Your task to perform on an android device: change keyboard looks Image 0: 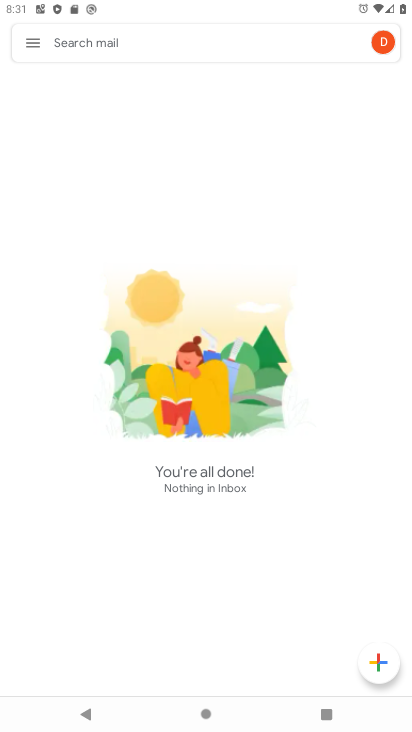
Step 0: press home button
Your task to perform on an android device: change keyboard looks Image 1: 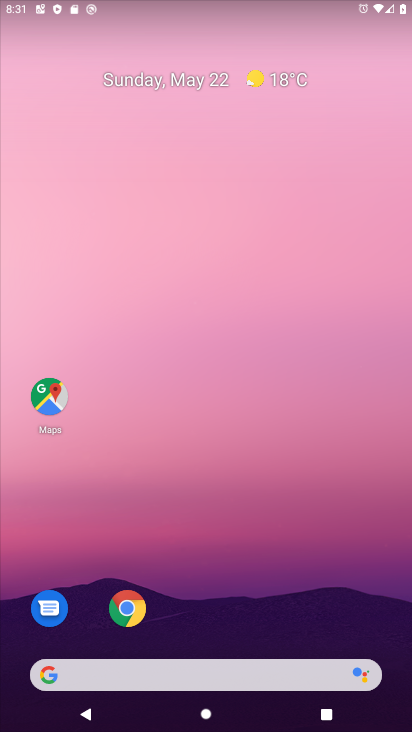
Step 1: drag from (226, 725) to (212, 141)
Your task to perform on an android device: change keyboard looks Image 2: 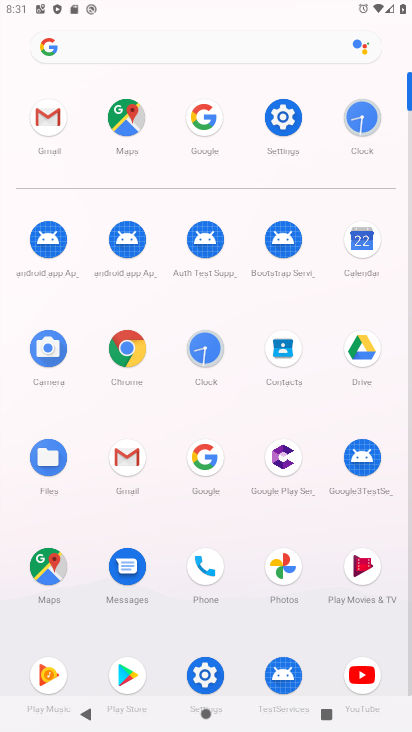
Step 2: click (285, 109)
Your task to perform on an android device: change keyboard looks Image 3: 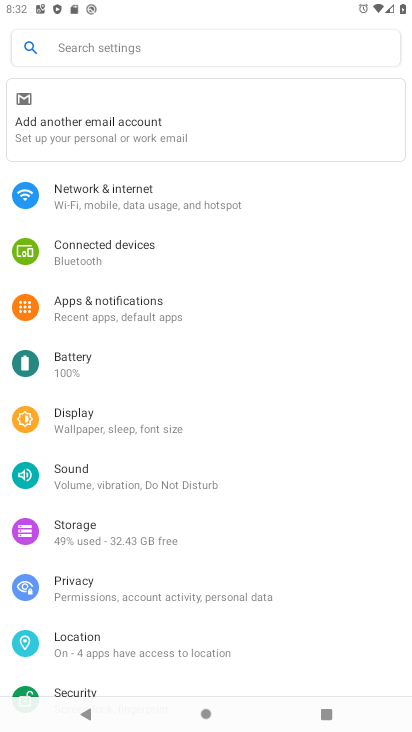
Step 3: drag from (168, 666) to (180, 230)
Your task to perform on an android device: change keyboard looks Image 4: 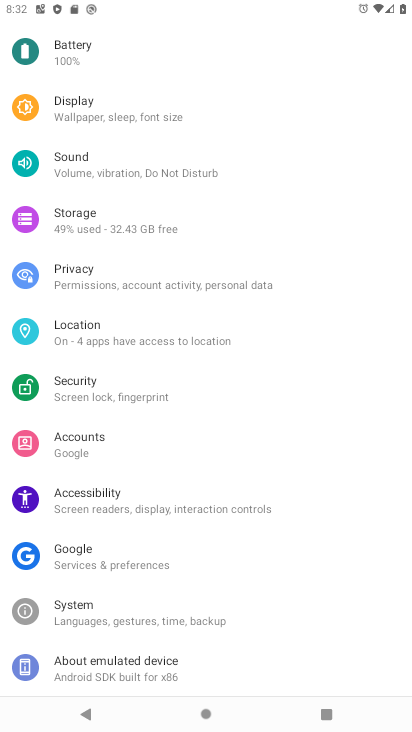
Step 4: click (97, 609)
Your task to perform on an android device: change keyboard looks Image 5: 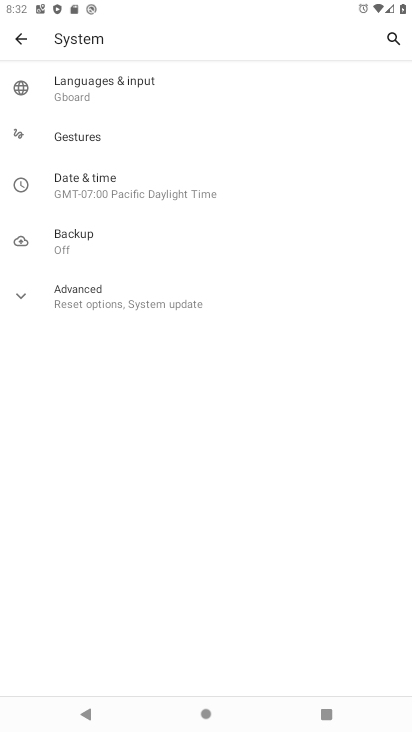
Step 5: click (80, 89)
Your task to perform on an android device: change keyboard looks Image 6: 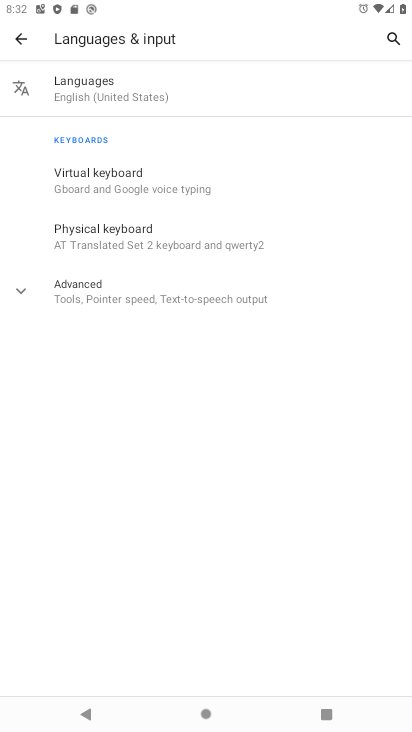
Step 6: click (110, 178)
Your task to perform on an android device: change keyboard looks Image 7: 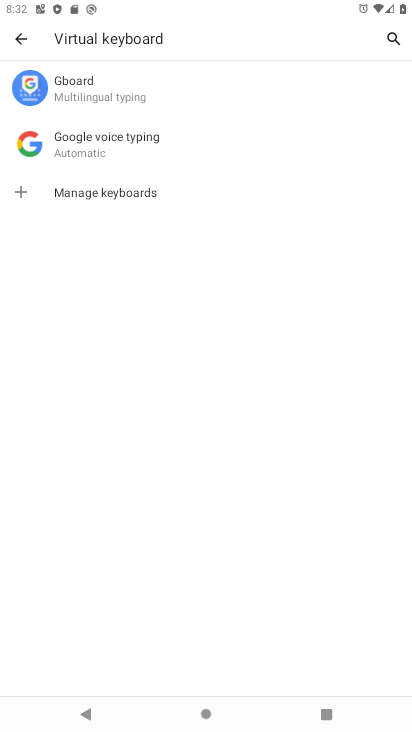
Step 7: click (79, 86)
Your task to perform on an android device: change keyboard looks Image 8: 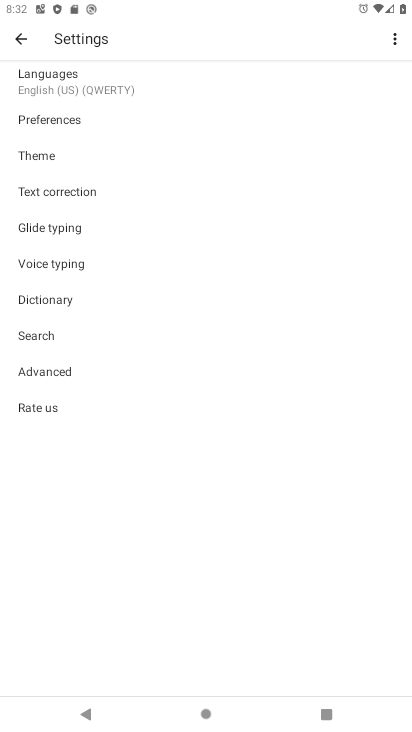
Step 8: click (39, 153)
Your task to perform on an android device: change keyboard looks Image 9: 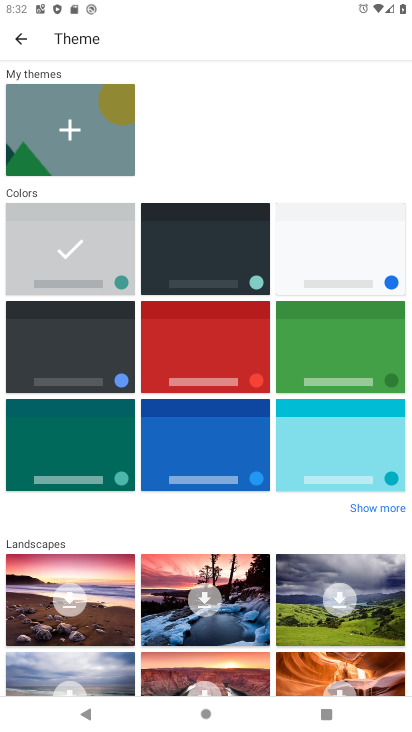
Step 9: click (228, 256)
Your task to perform on an android device: change keyboard looks Image 10: 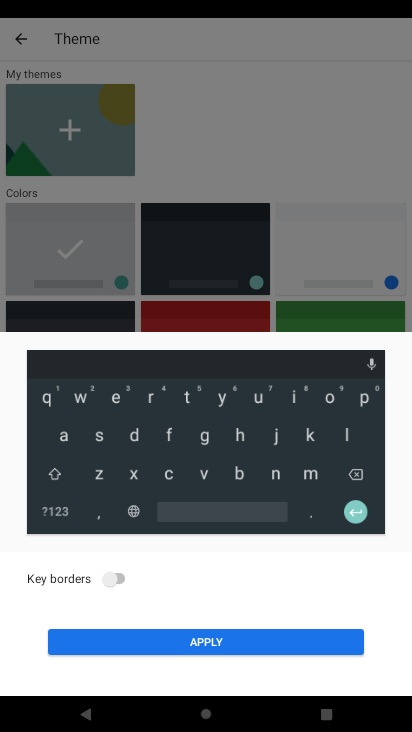
Step 10: click (119, 575)
Your task to perform on an android device: change keyboard looks Image 11: 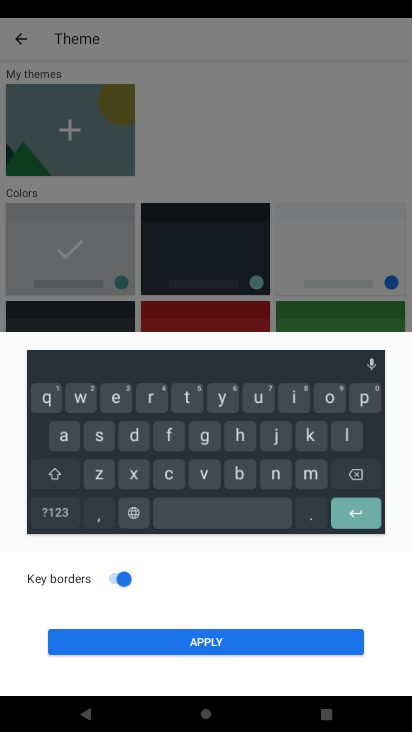
Step 11: click (220, 643)
Your task to perform on an android device: change keyboard looks Image 12: 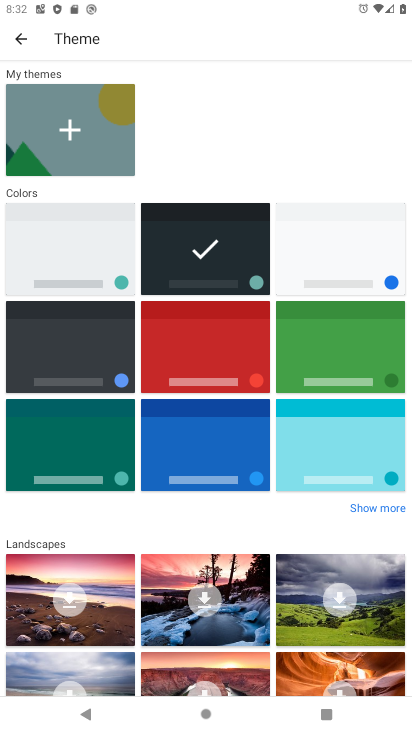
Step 12: task complete